Your task to perform on an android device: Open the calendar app, open the side menu, and click the "Day" option Image 0: 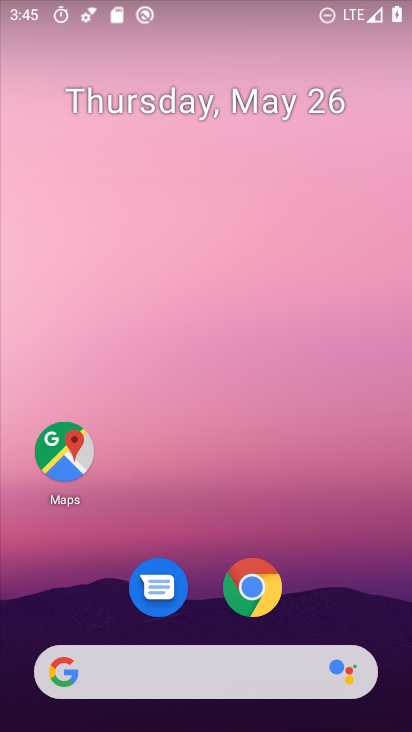
Step 0: drag from (342, 547) to (272, 134)
Your task to perform on an android device: Open the calendar app, open the side menu, and click the "Day" option Image 1: 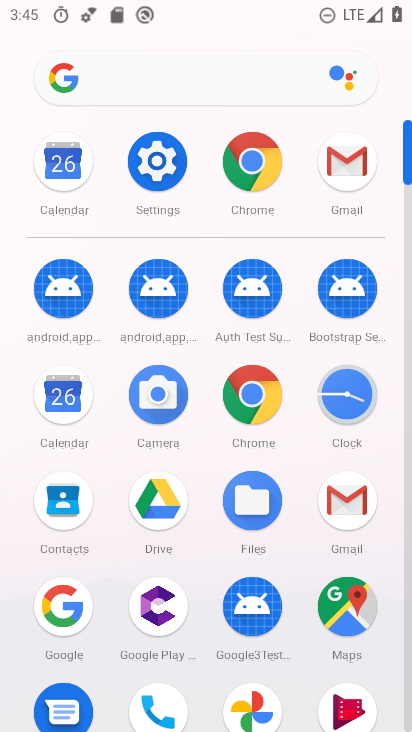
Step 1: click (77, 413)
Your task to perform on an android device: Open the calendar app, open the side menu, and click the "Day" option Image 2: 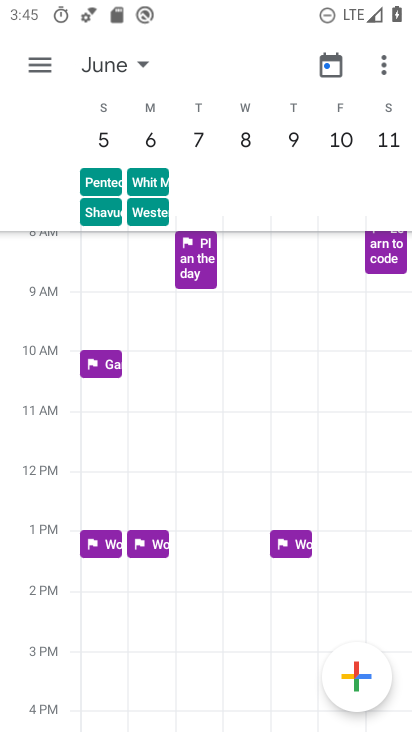
Step 2: click (57, 62)
Your task to perform on an android device: Open the calendar app, open the side menu, and click the "Day" option Image 3: 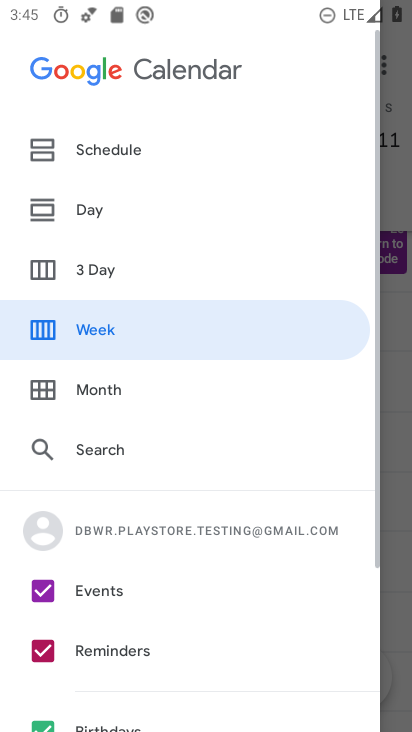
Step 3: click (79, 201)
Your task to perform on an android device: Open the calendar app, open the side menu, and click the "Day" option Image 4: 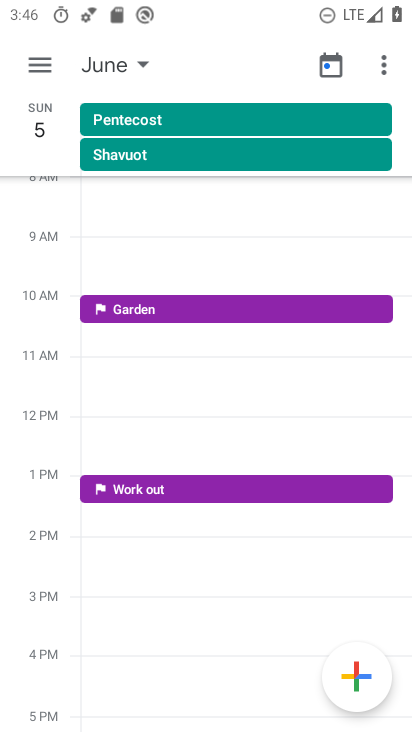
Step 4: task complete